Your task to perform on an android device: turn pop-ups on in chrome Image 0: 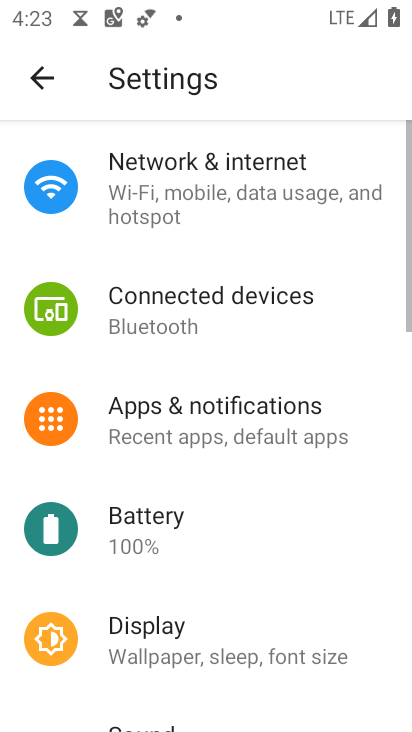
Step 0: press home button
Your task to perform on an android device: turn pop-ups on in chrome Image 1: 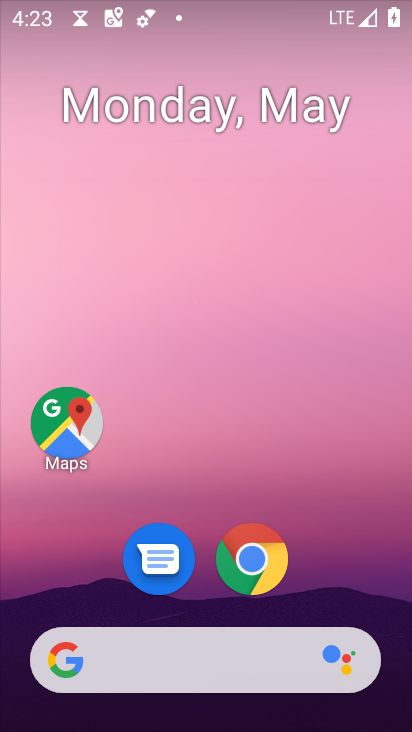
Step 1: click (255, 564)
Your task to perform on an android device: turn pop-ups on in chrome Image 2: 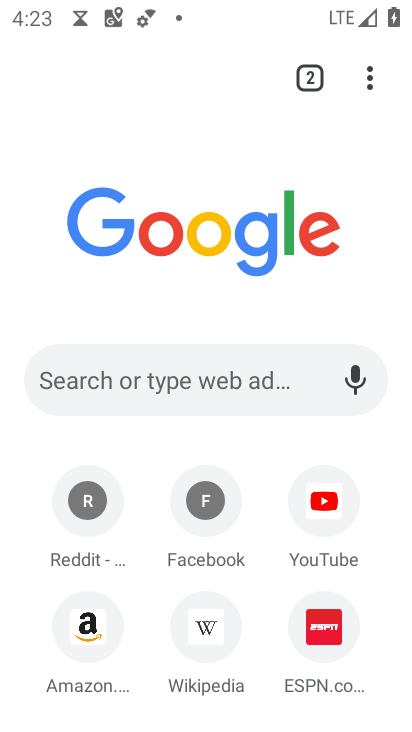
Step 2: click (369, 88)
Your task to perform on an android device: turn pop-ups on in chrome Image 3: 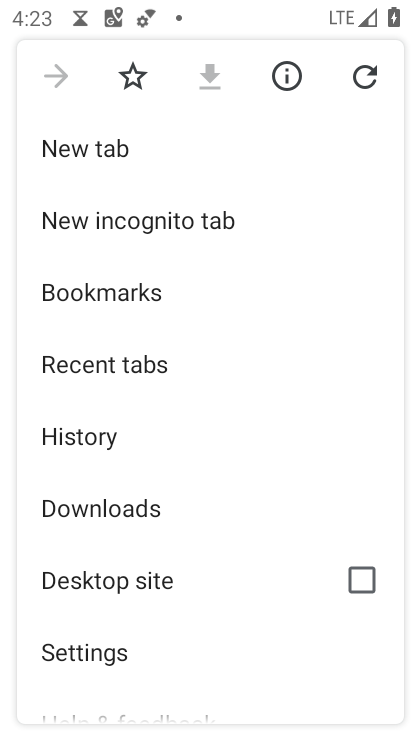
Step 3: click (128, 662)
Your task to perform on an android device: turn pop-ups on in chrome Image 4: 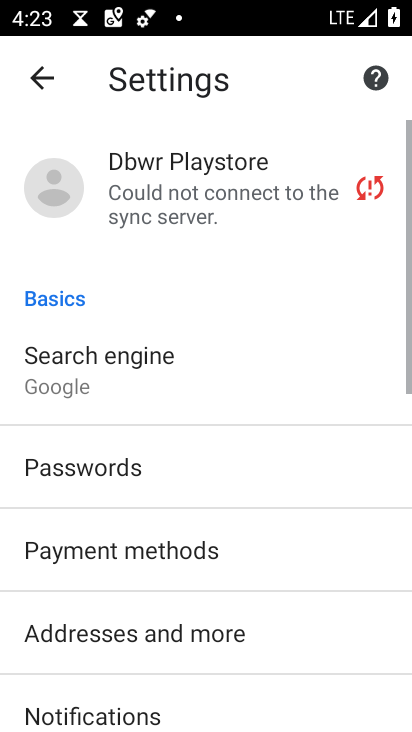
Step 4: drag from (145, 660) to (137, 160)
Your task to perform on an android device: turn pop-ups on in chrome Image 5: 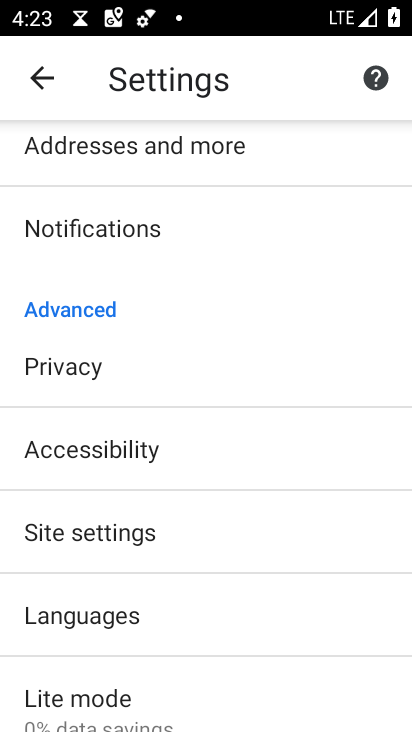
Step 5: click (101, 525)
Your task to perform on an android device: turn pop-ups on in chrome Image 6: 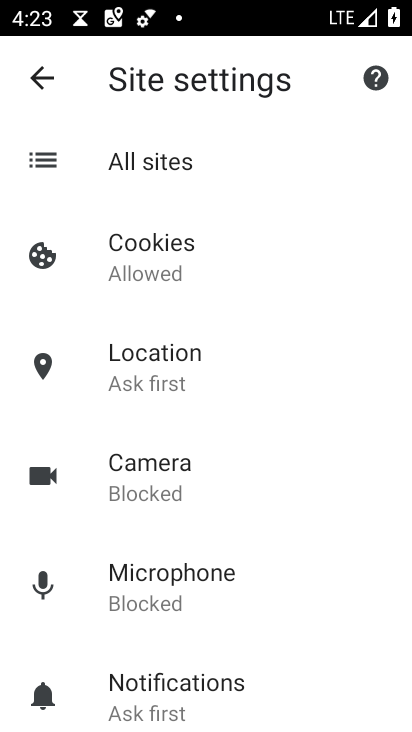
Step 6: drag from (195, 704) to (195, 282)
Your task to perform on an android device: turn pop-ups on in chrome Image 7: 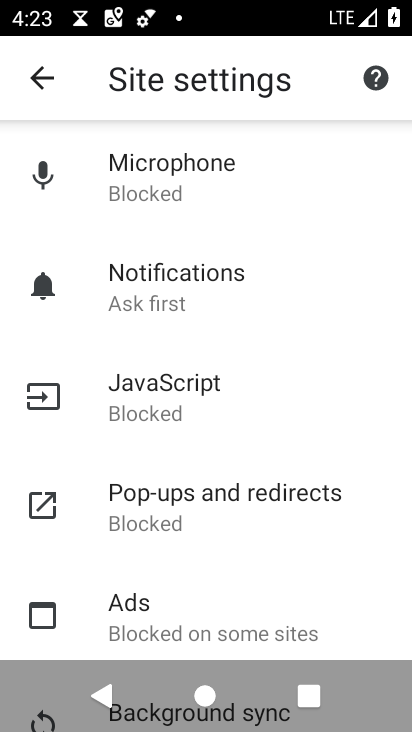
Step 7: click (182, 505)
Your task to perform on an android device: turn pop-ups on in chrome Image 8: 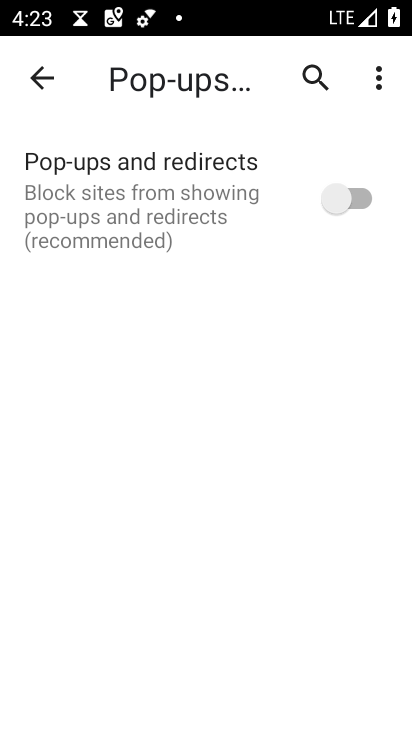
Step 8: click (365, 193)
Your task to perform on an android device: turn pop-ups on in chrome Image 9: 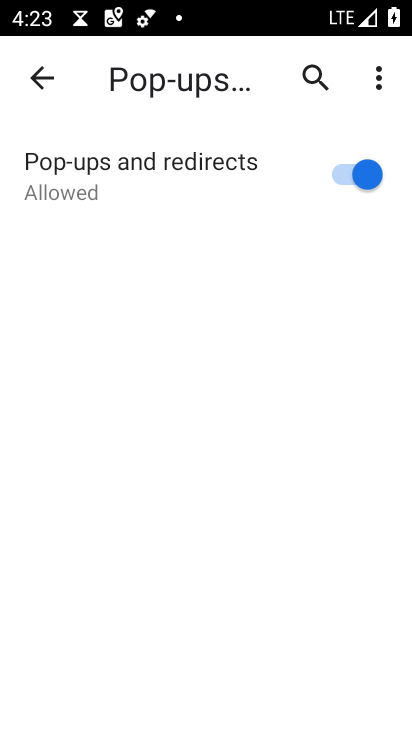
Step 9: task complete